Your task to perform on an android device: toggle notifications settings in the gmail app Image 0: 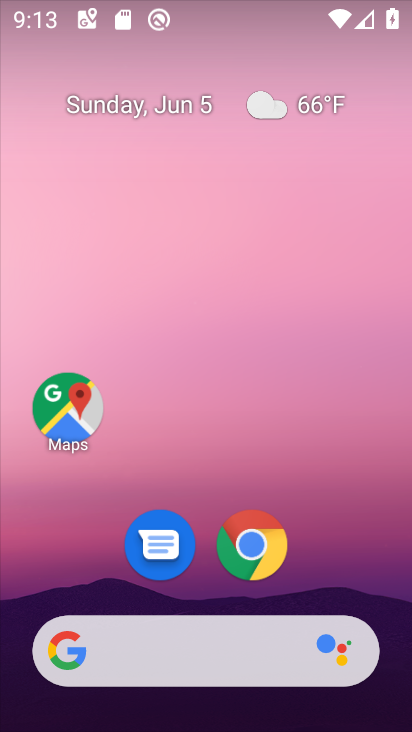
Step 0: drag from (371, 564) to (368, 133)
Your task to perform on an android device: toggle notifications settings in the gmail app Image 1: 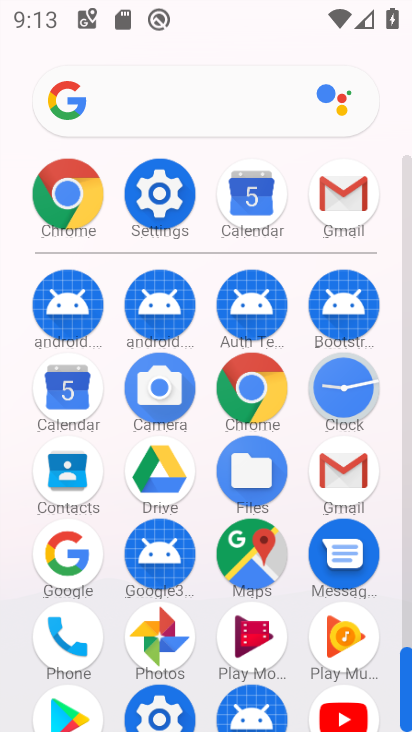
Step 1: click (361, 470)
Your task to perform on an android device: toggle notifications settings in the gmail app Image 2: 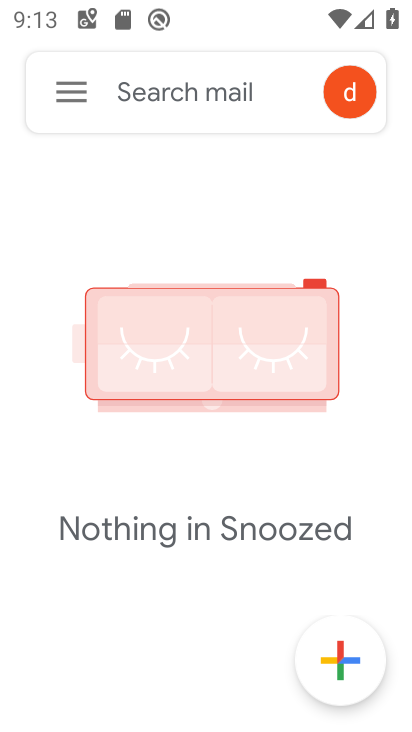
Step 2: click (81, 99)
Your task to perform on an android device: toggle notifications settings in the gmail app Image 3: 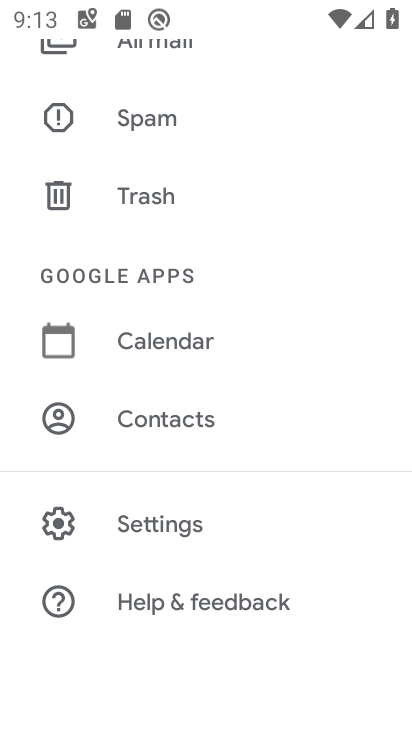
Step 3: drag from (326, 212) to (308, 338)
Your task to perform on an android device: toggle notifications settings in the gmail app Image 4: 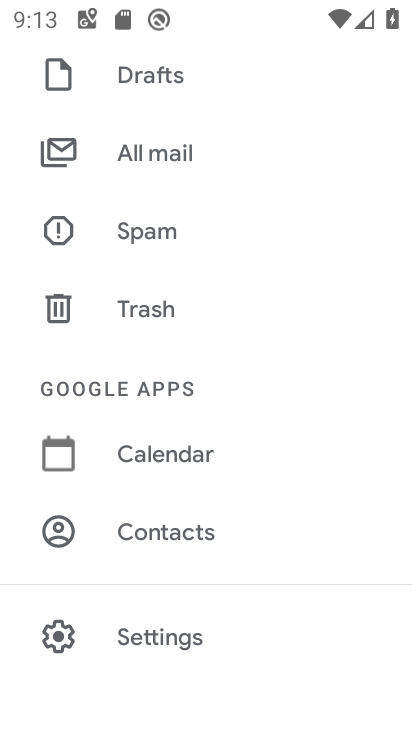
Step 4: drag from (294, 182) to (304, 456)
Your task to perform on an android device: toggle notifications settings in the gmail app Image 5: 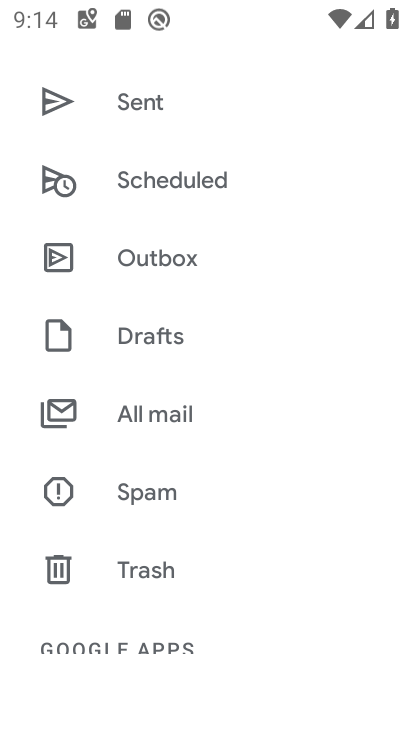
Step 5: drag from (326, 214) to (318, 417)
Your task to perform on an android device: toggle notifications settings in the gmail app Image 6: 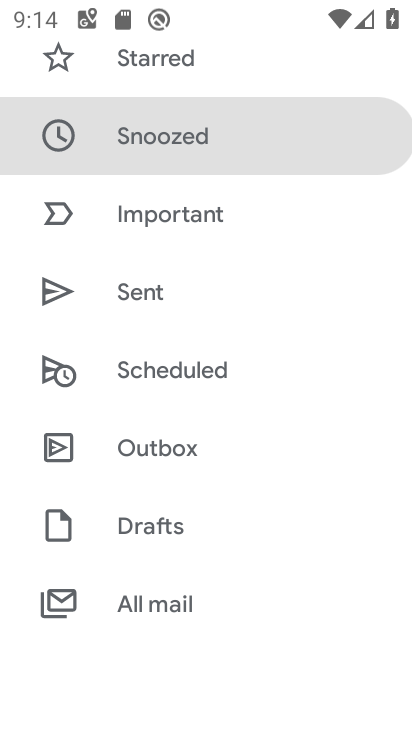
Step 6: drag from (311, 230) to (299, 507)
Your task to perform on an android device: toggle notifications settings in the gmail app Image 7: 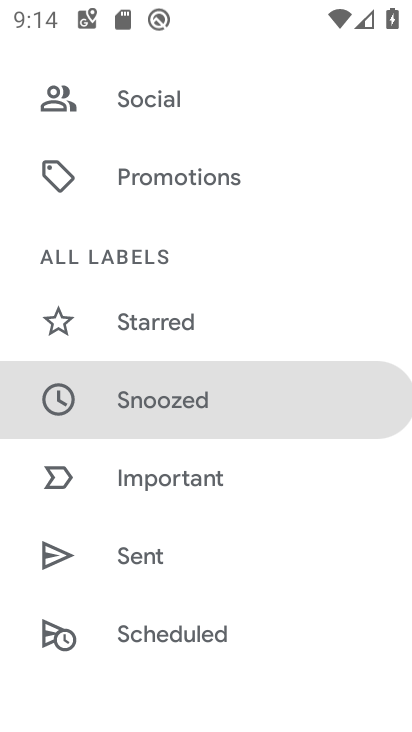
Step 7: drag from (311, 177) to (299, 378)
Your task to perform on an android device: toggle notifications settings in the gmail app Image 8: 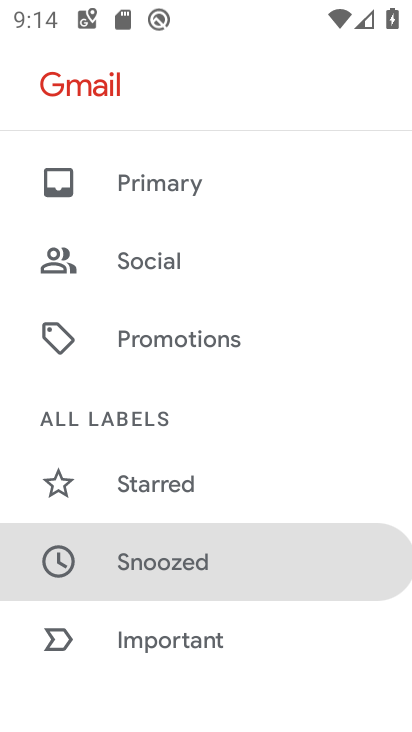
Step 8: drag from (306, 417) to (313, 286)
Your task to perform on an android device: toggle notifications settings in the gmail app Image 9: 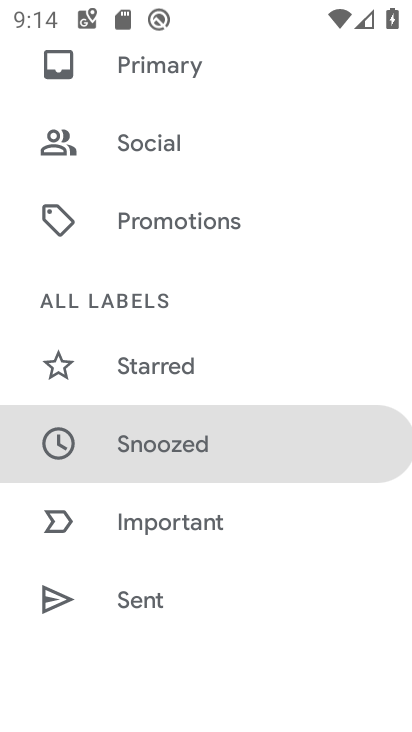
Step 9: drag from (316, 453) to (334, 318)
Your task to perform on an android device: toggle notifications settings in the gmail app Image 10: 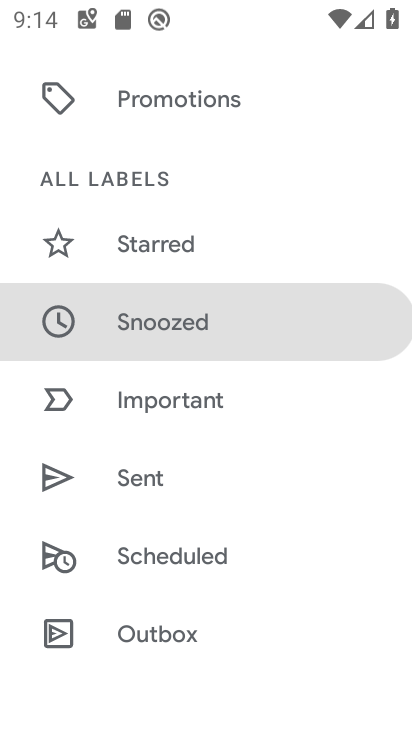
Step 10: drag from (331, 437) to (333, 335)
Your task to perform on an android device: toggle notifications settings in the gmail app Image 11: 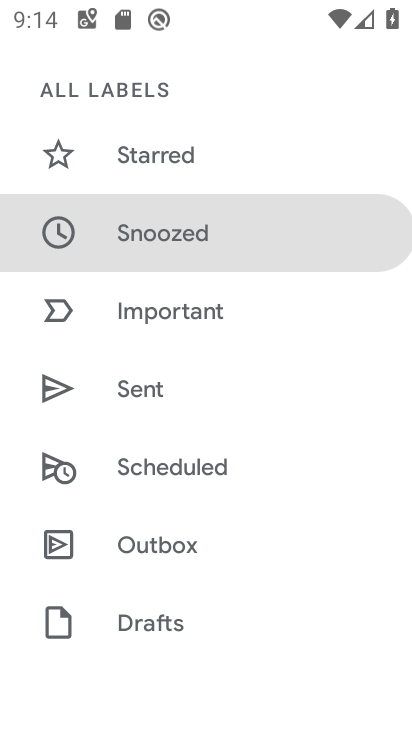
Step 11: drag from (321, 448) to (314, 305)
Your task to perform on an android device: toggle notifications settings in the gmail app Image 12: 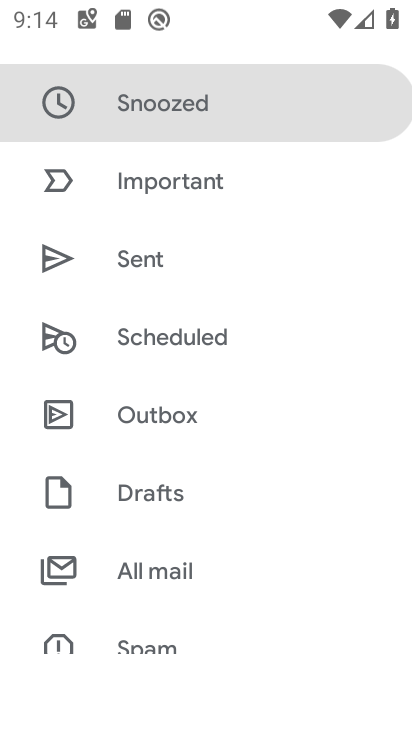
Step 12: drag from (299, 505) to (309, 287)
Your task to perform on an android device: toggle notifications settings in the gmail app Image 13: 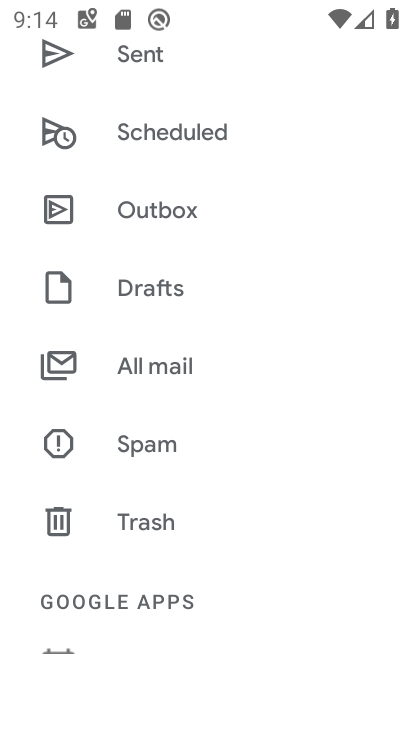
Step 13: drag from (296, 492) to (313, 262)
Your task to perform on an android device: toggle notifications settings in the gmail app Image 14: 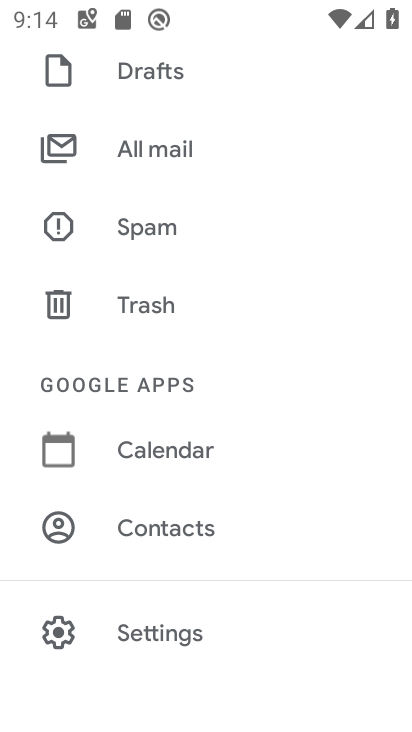
Step 14: drag from (309, 522) to (310, 318)
Your task to perform on an android device: toggle notifications settings in the gmail app Image 15: 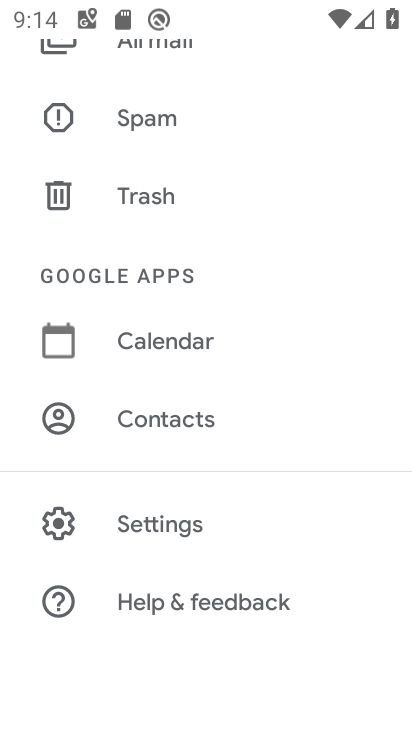
Step 15: click (207, 530)
Your task to perform on an android device: toggle notifications settings in the gmail app Image 16: 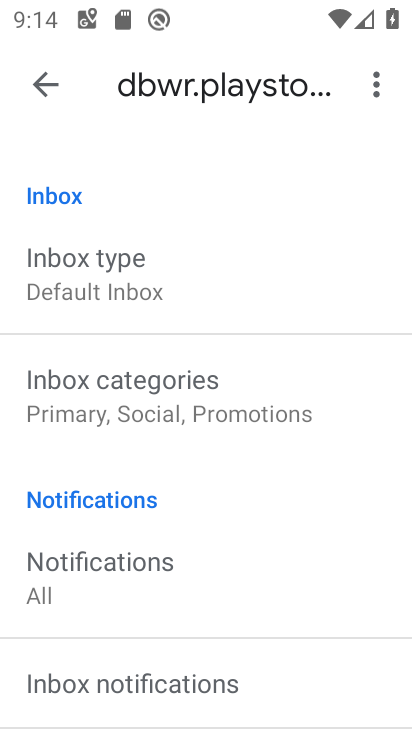
Step 16: drag from (334, 537) to (323, 375)
Your task to perform on an android device: toggle notifications settings in the gmail app Image 17: 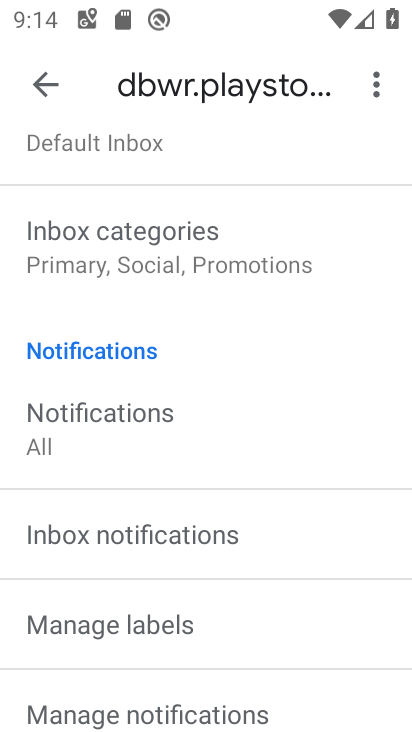
Step 17: drag from (303, 597) to (315, 393)
Your task to perform on an android device: toggle notifications settings in the gmail app Image 18: 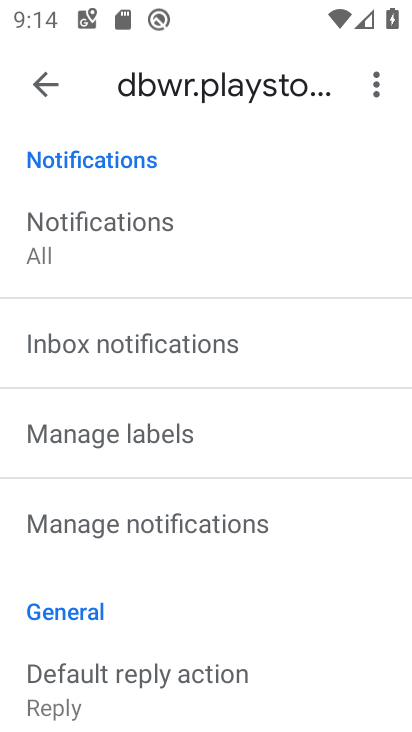
Step 18: click (223, 539)
Your task to perform on an android device: toggle notifications settings in the gmail app Image 19: 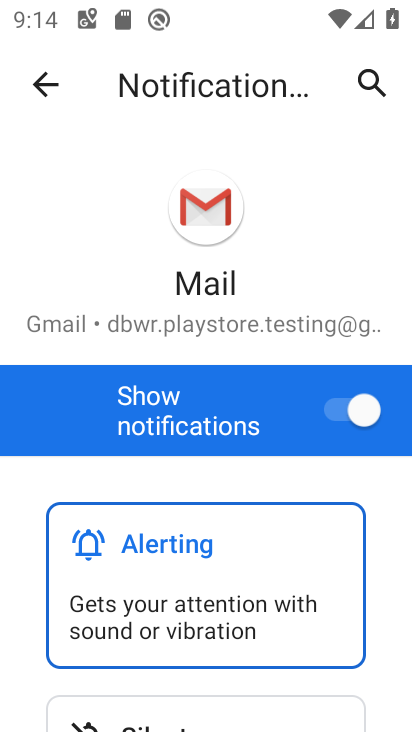
Step 19: click (355, 413)
Your task to perform on an android device: toggle notifications settings in the gmail app Image 20: 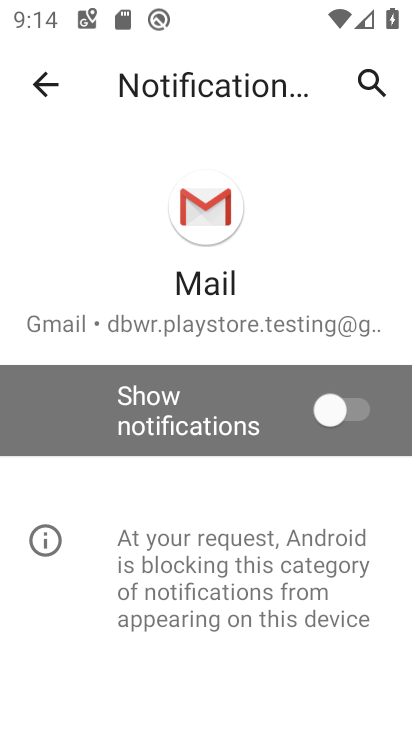
Step 20: task complete